Your task to perform on an android device: Show the shopping cart on target. Search for razer deathadder on target, select the first entry, add it to the cart, then select checkout. Image 0: 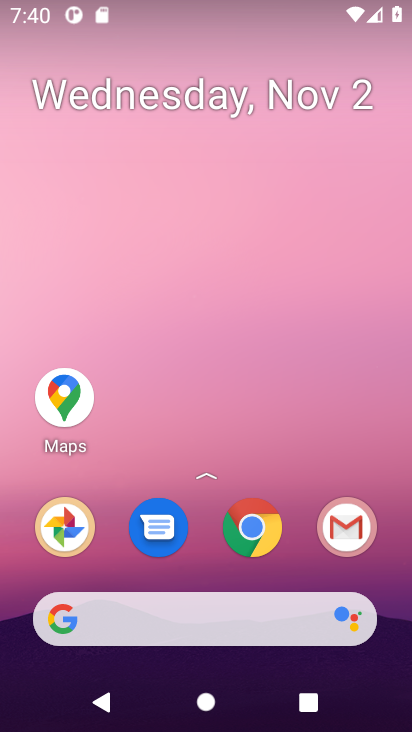
Step 0: click (254, 530)
Your task to perform on an android device: Show the shopping cart on target. Search for razer deathadder on target, select the first entry, add it to the cart, then select checkout. Image 1: 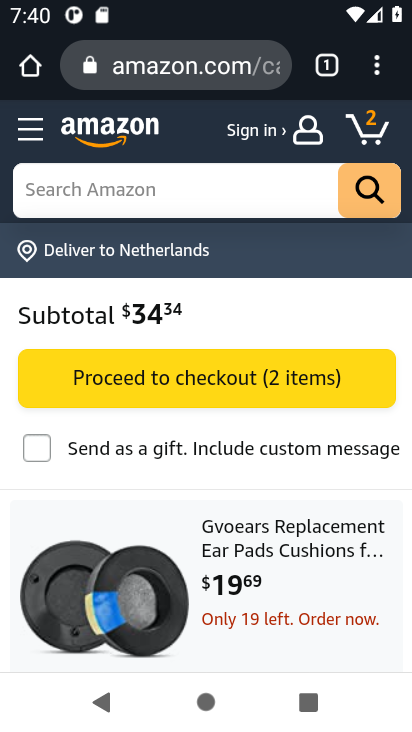
Step 1: click (166, 73)
Your task to perform on an android device: Show the shopping cart on target. Search for razer deathadder on target, select the first entry, add it to the cart, then select checkout. Image 2: 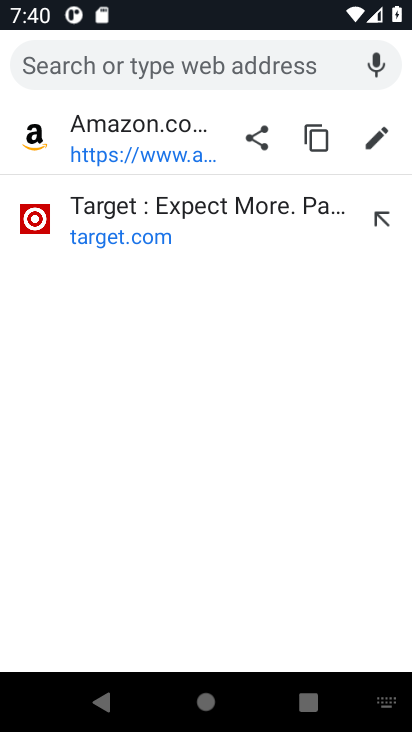
Step 2: type "target"
Your task to perform on an android device: Show the shopping cart on target. Search for razer deathadder on target, select the first entry, add it to the cart, then select checkout. Image 3: 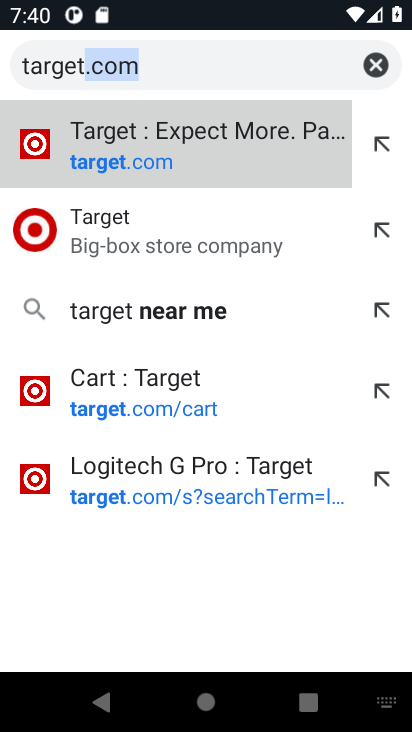
Step 3: click (226, 137)
Your task to perform on an android device: Show the shopping cart on target. Search for razer deathadder on target, select the first entry, add it to the cart, then select checkout. Image 4: 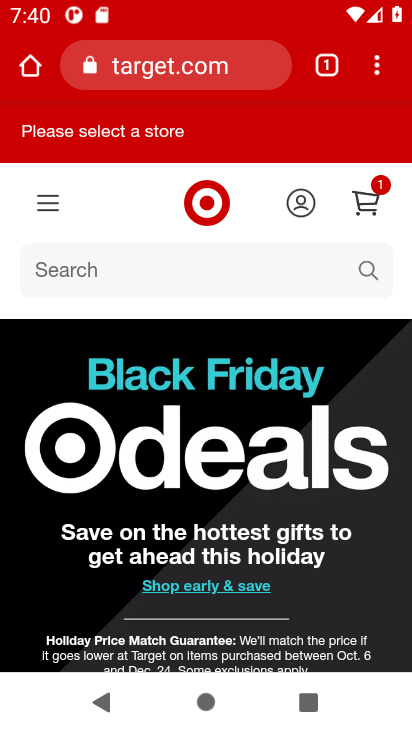
Step 4: click (370, 196)
Your task to perform on an android device: Show the shopping cart on target. Search for razer deathadder on target, select the first entry, add it to the cart, then select checkout. Image 5: 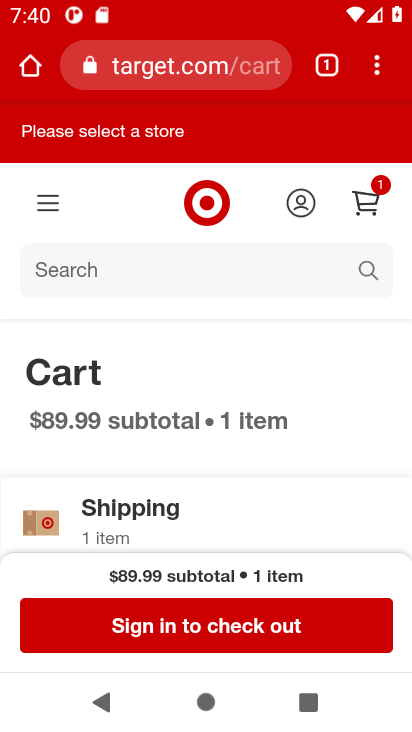
Step 5: click (219, 276)
Your task to perform on an android device: Show the shopping cart on target. Search for razer deathadder on target, select the first entry, add it to the cart, then select checkout. Image 6: 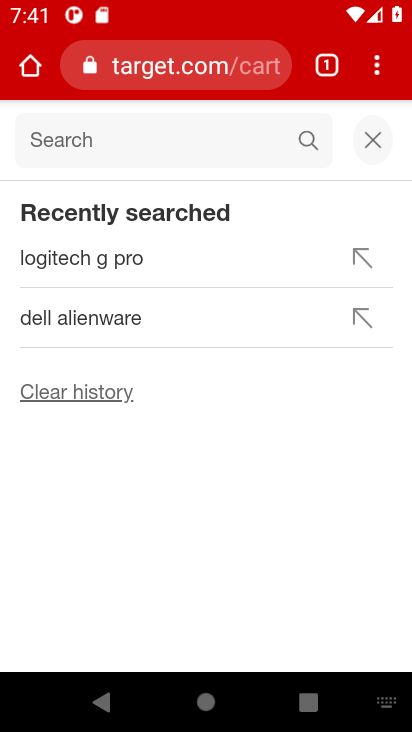
Step 6: type "razer deathadder"
Your task to perform on an android device: Show the shopping cart on target. Search for razer deathadder on target, select the first entry, add it to the cart, then select checkout. Image 7: 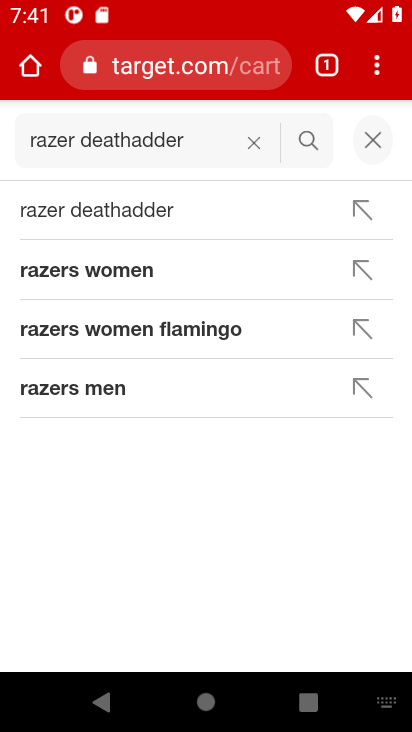
Step 7: click (125, 212)
Your task to perform on an android device: Show the shopping cart on target. Search for razer deathadder on target, select the first entry, add it to the cart, then select checkout. Image 8: 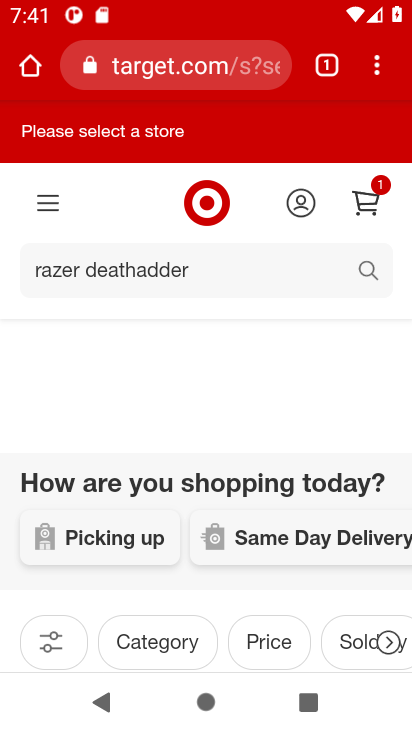
Step 8: drag from (209, 440) to (172, 214)
Your task to perform on an android device: Show the shopping cart on target. Search for razer deathadder on target, select the first entry, add it to the cart, then select checkout. Image 9: 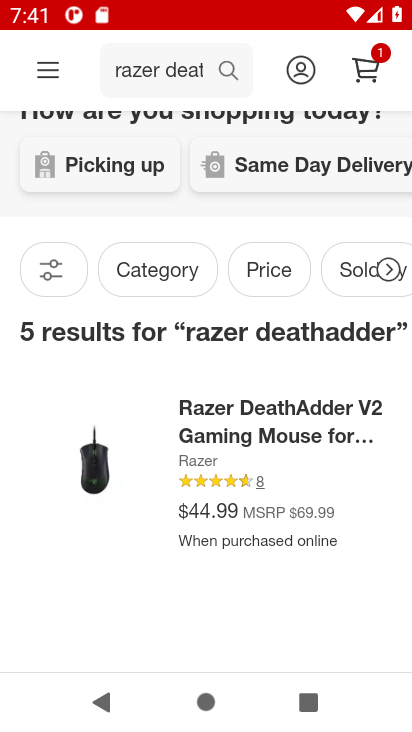
Step 9: click (241, 445)
Your task to perform on an android device: Show the shopping cart on target. Search for razer deathadder on target, select the first entry, add it to the cart, then select checkout. Image 10: 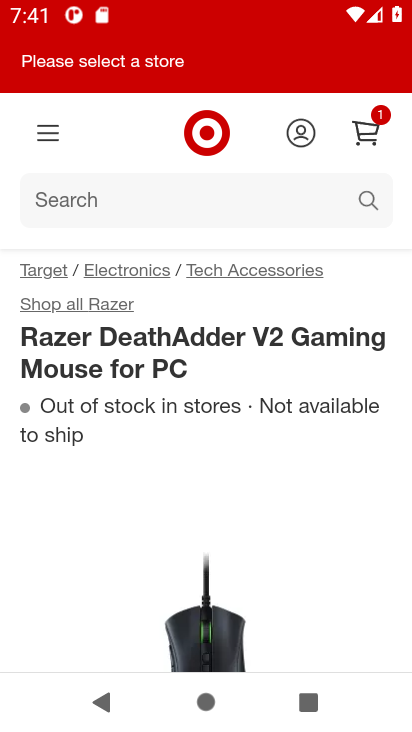
Step 10: drag from (321, 588) to (238, 224)
Your task to perform on an android device: Show the shopping cart on target. Search for razer deathadder on target, select the first entry, add it to the cart, then select checkout. Image 11: 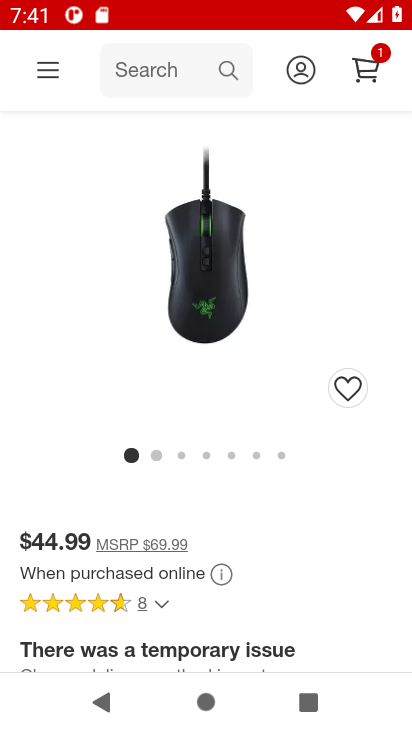
Step 11: drag from (279, 597) to (198, 344)
Your task to perform on an android device: Show the shopping cart on target. Search for razer deathadder on target, select the first entry, add it to the cart, then select checkout. Image 12: 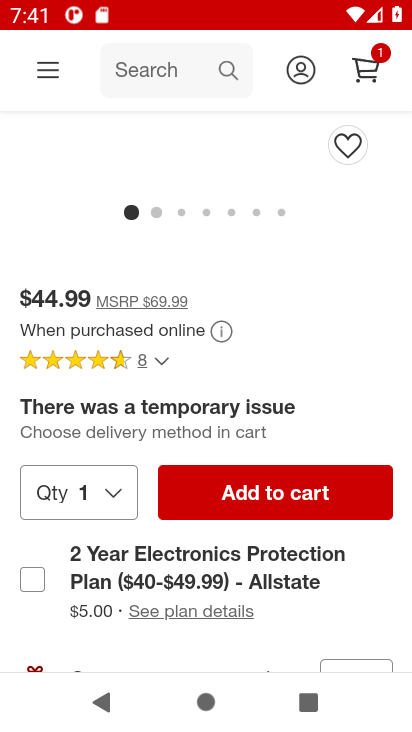
Step 12: click (273, 486)
Your task to perform on an android device: Show the shopping cart on target. Search for razer deathadder on target, select the first entry, add it to the cart, then select checkout. Image 13: 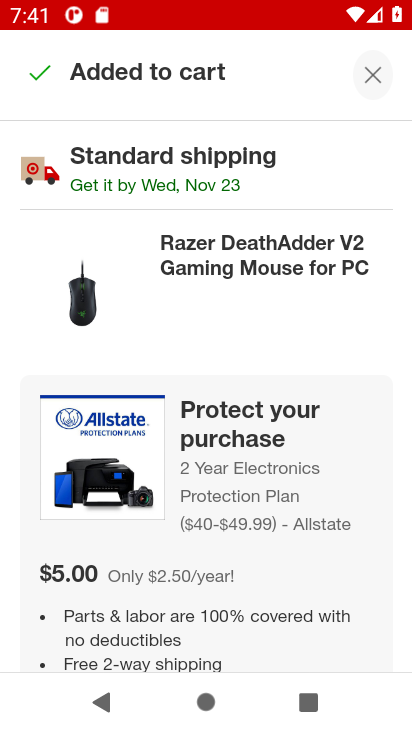
Step 13: click (378, 77)
Your task to perform on an android device: Show the shopping cart on target. Search for razer deathadder on target, select the first entry, add it to the cart, then select checkout. Image 14: 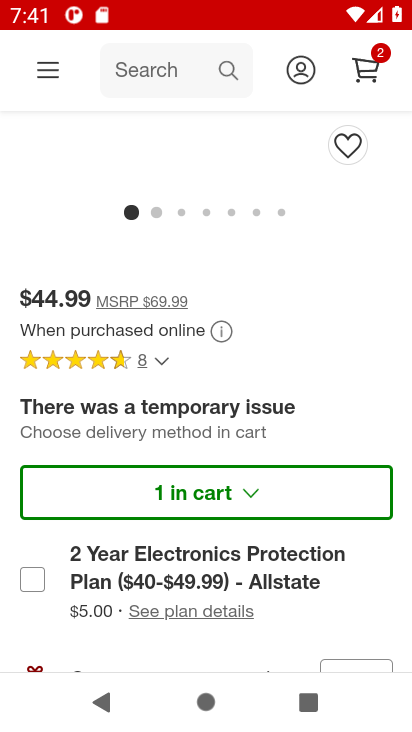
Step 14: click (378, 77)
Your task to perform on an android device: Show the shopping cart on target. Search for razer deathadder on target, select the first entry, add it to the cart, then select checkout. Image 15: 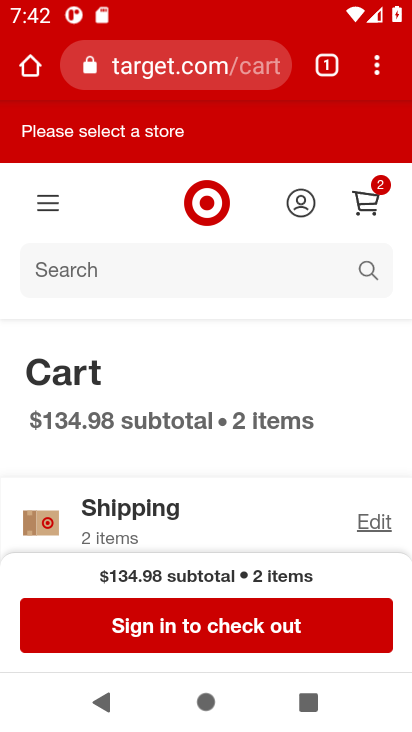
Step 15: click (195, 622)
Your task to perform on an android device: Show the shopping cart on target. Search for razer deathadder on target, select the first entry, add it to the cart, then select checkout. Image 16: 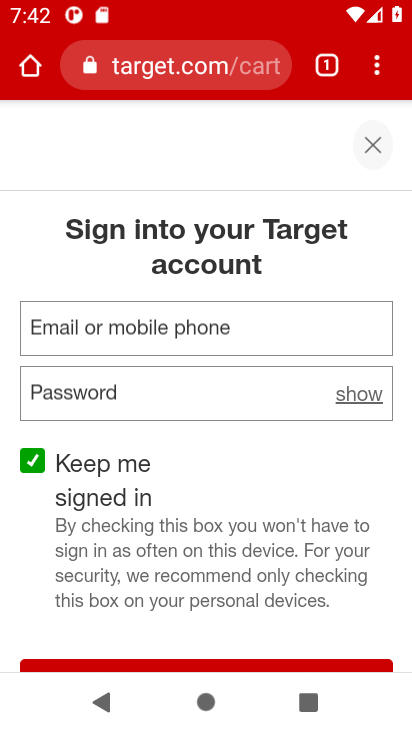
Step 16: task complete